Your task to perform on an android device: open app "Flipkart Online Shopping App" (install if not already installed) Image 0: 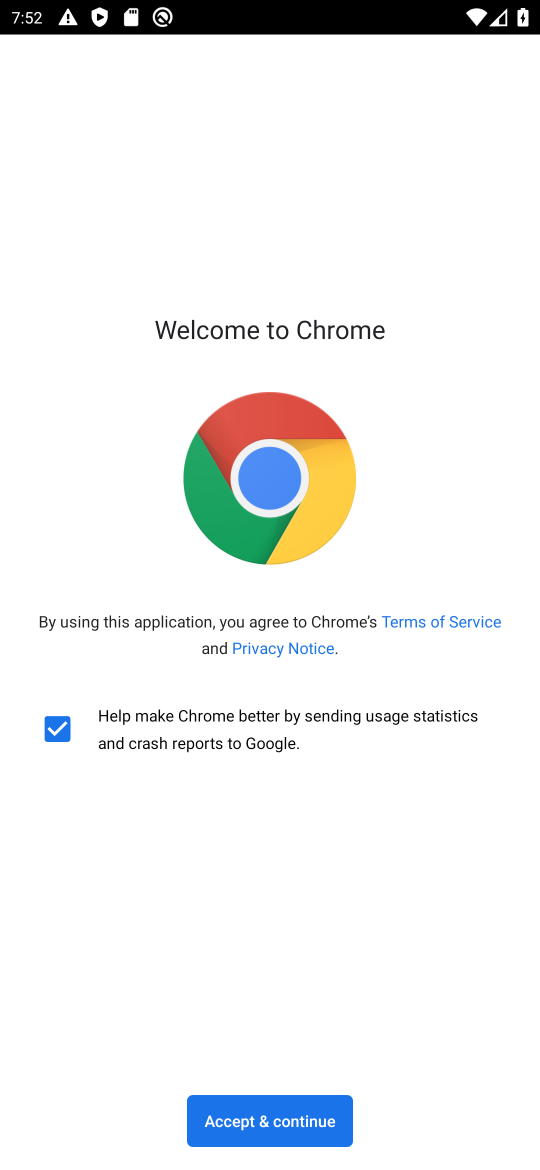
Step 0: press home button
Your task to perform on an android device: open app "Flipkart Online Shopping App" (install if not already installed) Image 1: 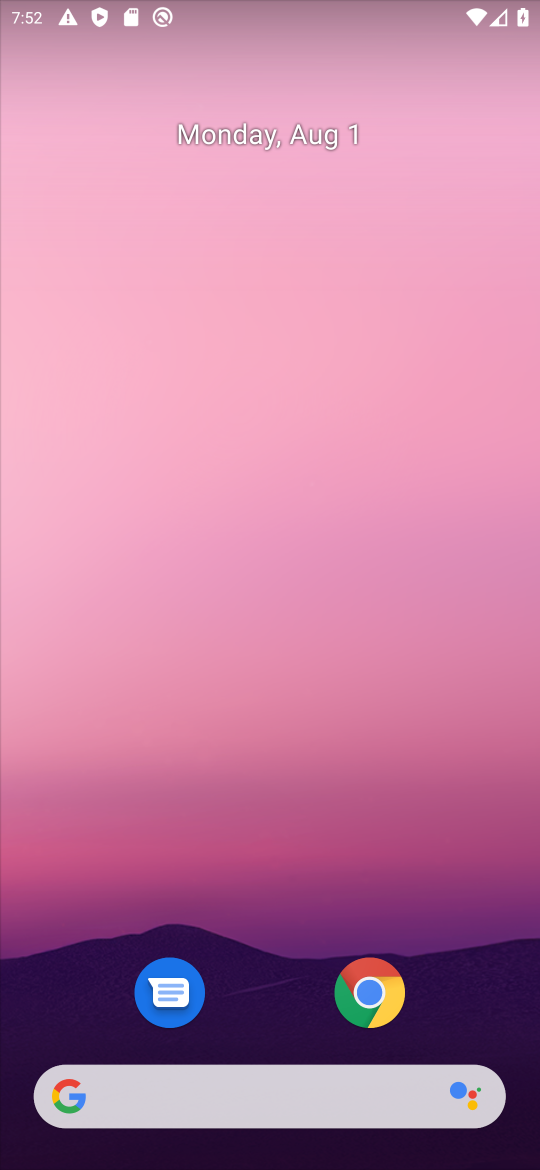
Step 1: drag from (436, 359) to (453, 76)
Your task to perform on an android device: open app "Flipkart Online Shopping App" (install if not already installed) Image 2: 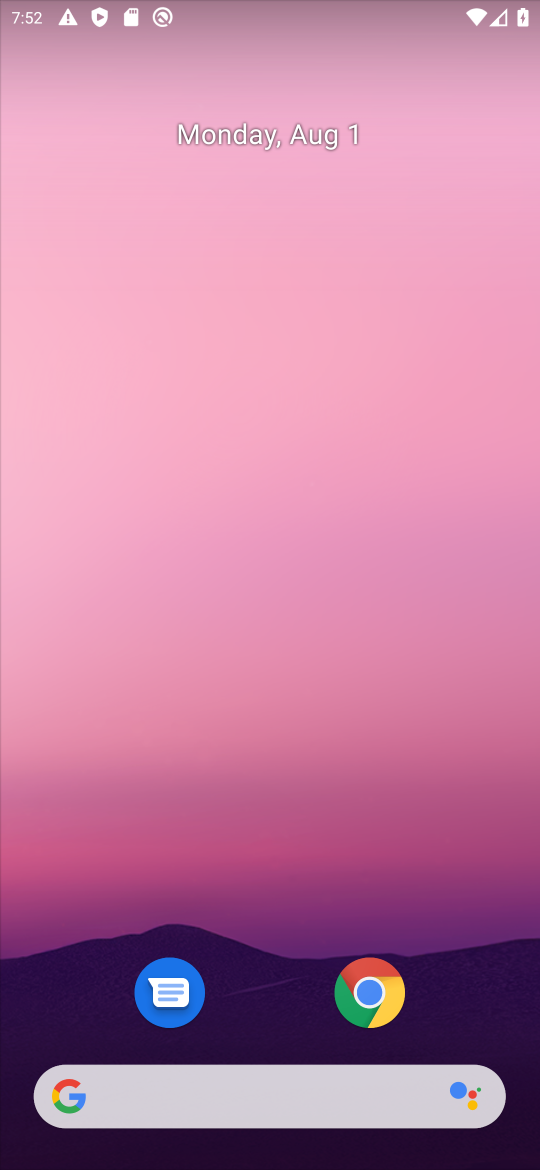
Step 2: drag from (489, 996) to (419, 15)
Your task to perform on an android device: open app "Flipkart Online Shopping App" (install if not already installed) Image 3: 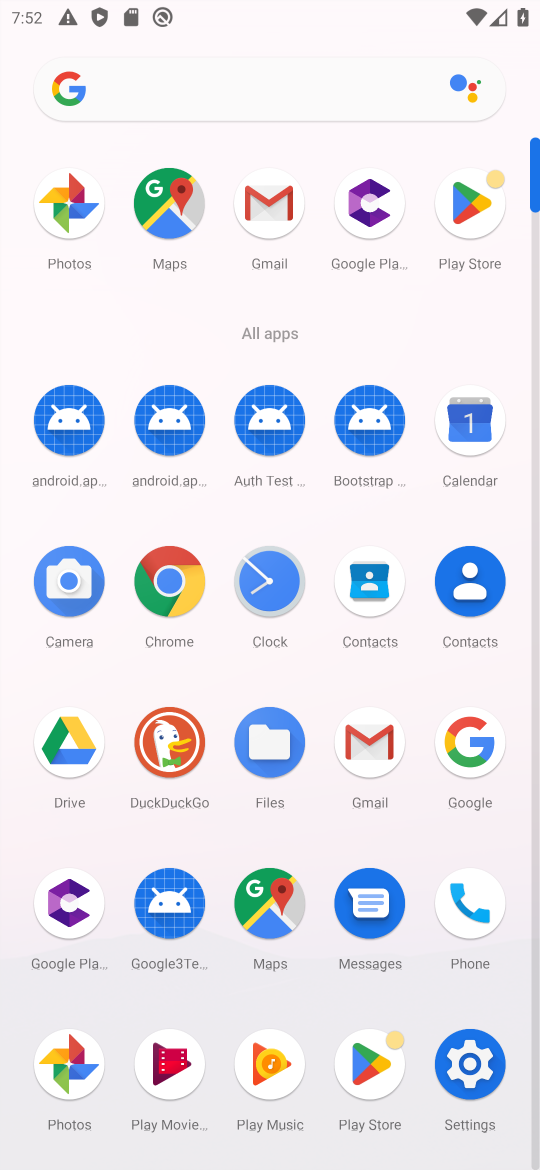
Step 3: click (472, 206)
Your task to perform on an android device: open app "Flipkart Online Shopping App" (install if not already installed) Image 4: 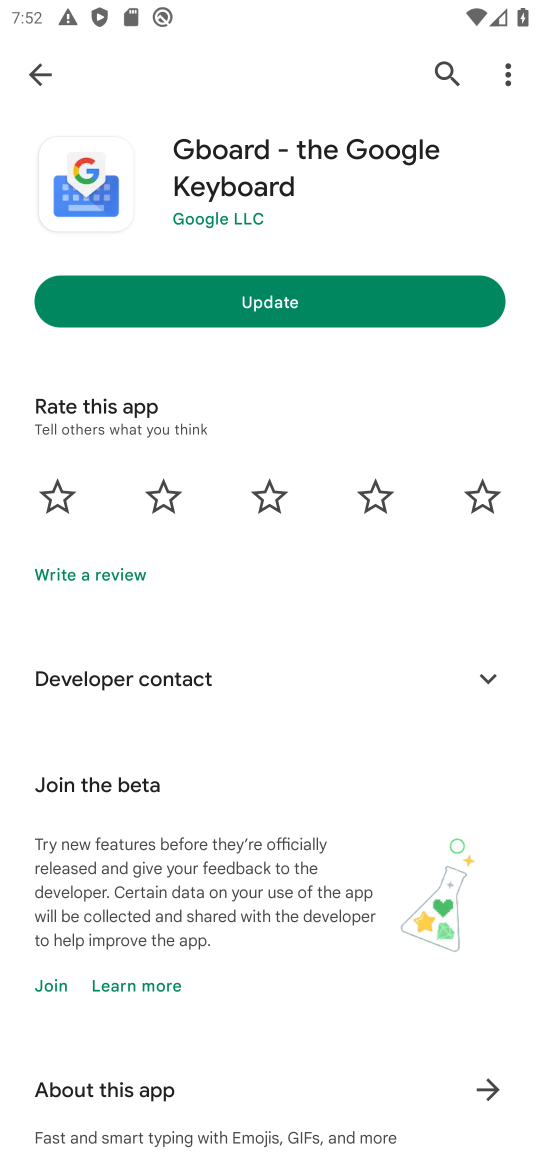
Step 4: click (440, 67)
Your task to perform on an android device: open app "Flipkart Online Shopping App" (install if not already installed) Image 5: 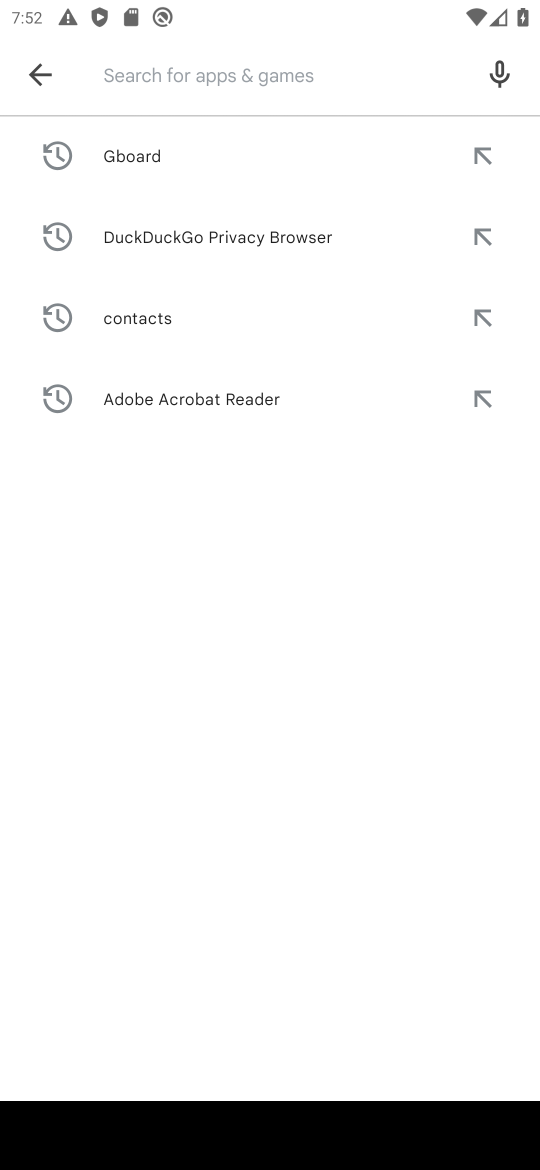
Step 5: type "Flipkart Online Shopping App"
Your task to perform on an android device: open app "Flipkart Online Shopping App" (install if not already installed) Image 6: 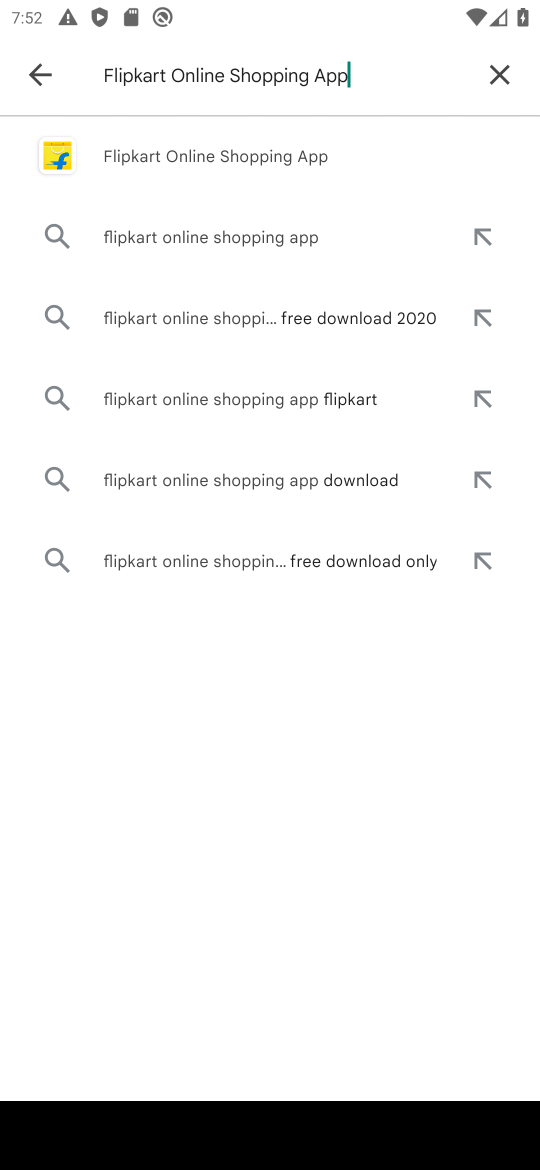
Step 6: click (237, 164)
Your task to perform on an android device: open app "Flipkart Online Shopping App" (install if not already installed) Image 7: 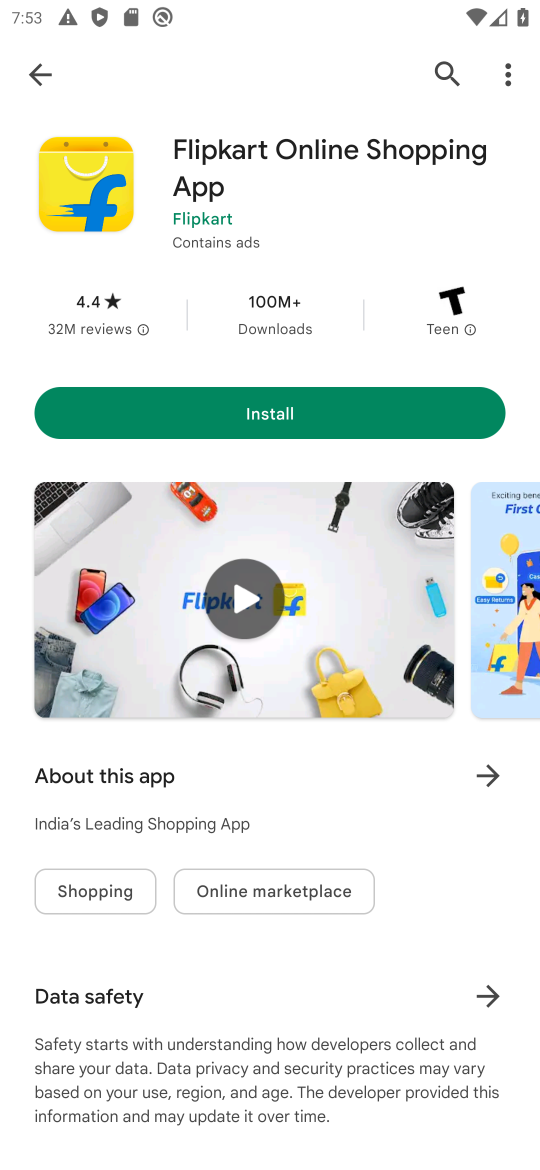
Step 7: click (83, 401)
Your task to perform on an android device: open app "Flipkart Online Shopping App" (install if not already installed) Image 8: 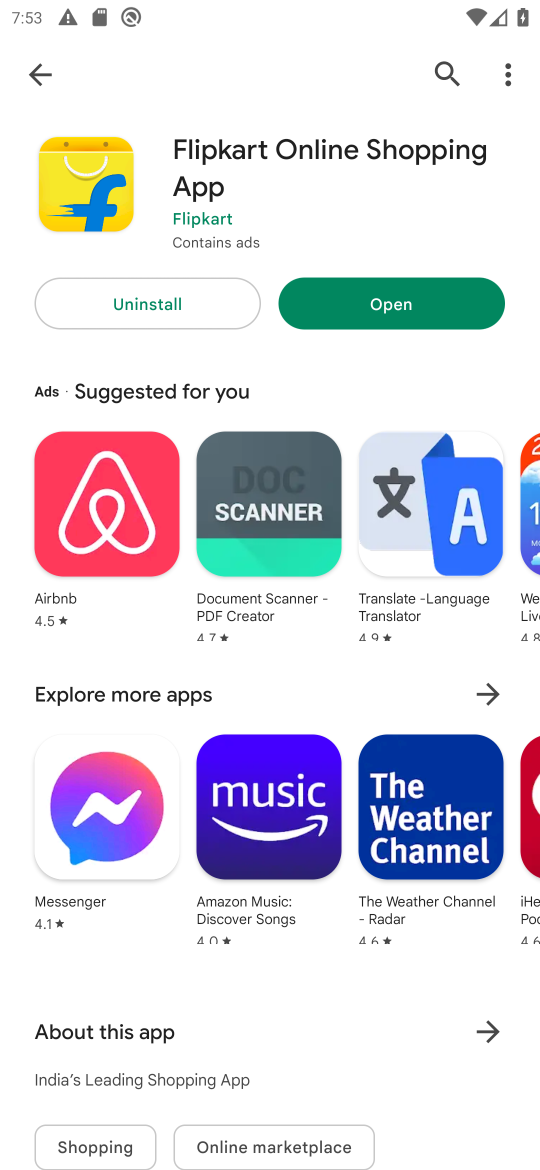
Step 8: click (377, 312)
Your task to perform on an android device: open app "Flipkart Online Shopping App" (install if not already installed) Image 9: 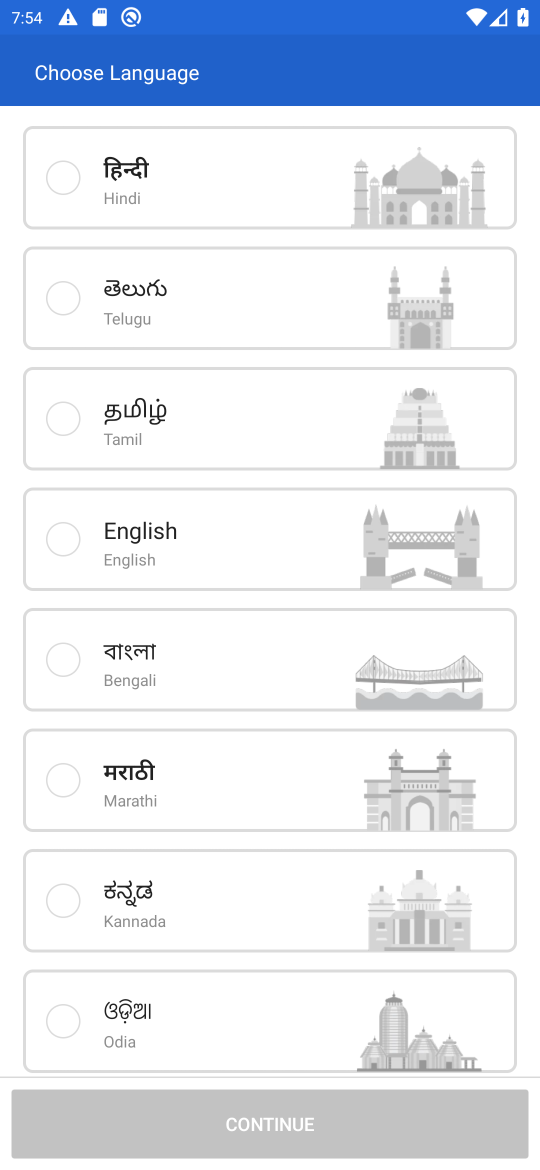
Step 9: task complete